Your task to perform on an android device: turn pop-ups on in chrome Image 0: 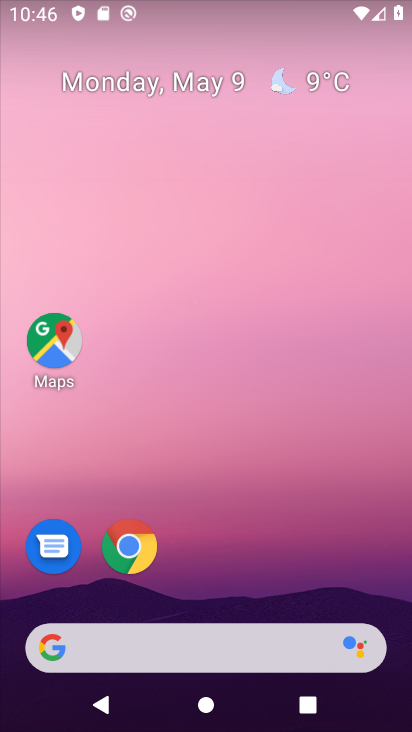
Step 0: click (125, 543)
Your task to perform on an android device: turn pop-ups on in chrome Image 1: 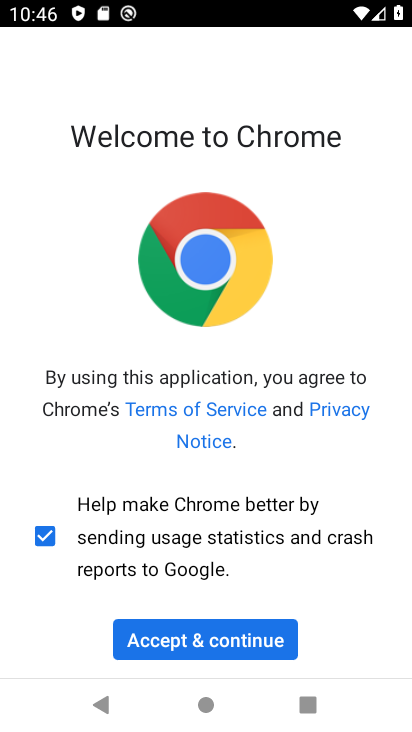
Step 1: click (252, 639)
Your task to perform on an android device: turn pop-ups on in chrome Image 2: 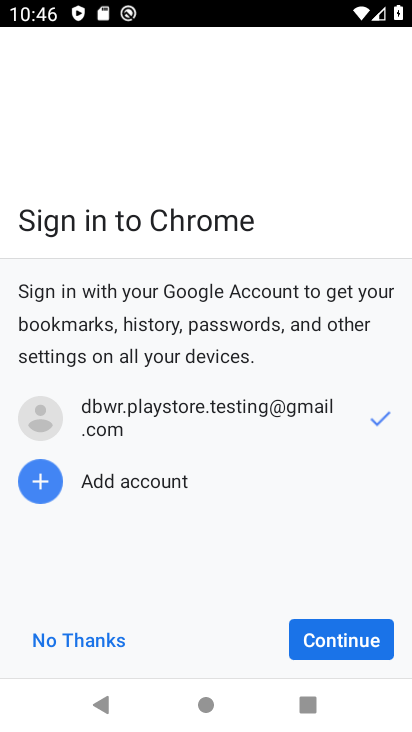
Step 2: click (349, 626)
Your task to perform on an android device: turn pop-ups on in chrome Image 3: 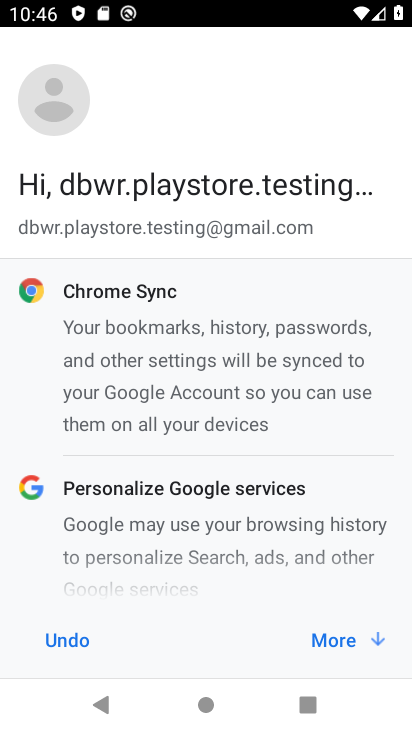
Step 3: click (333, 640)
Your task to perform on an android device: turn pop-ups on in chrome Image 4: 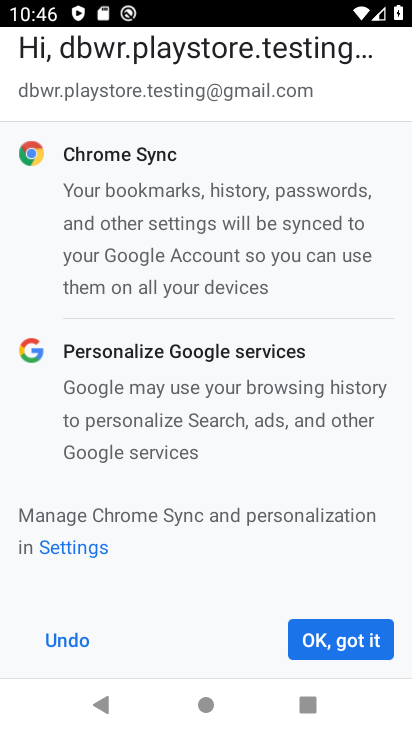
Step 4: click (356, 631)
Your task to perform on an android device: turn pop-ups on in chrome Image 5: 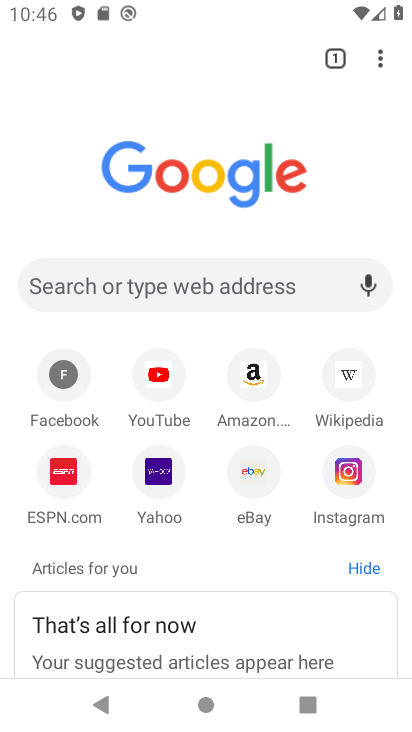
Step 5: click (382, 64)
Your task to perform on an android device: turn pop-ups on in chrome Image 6: 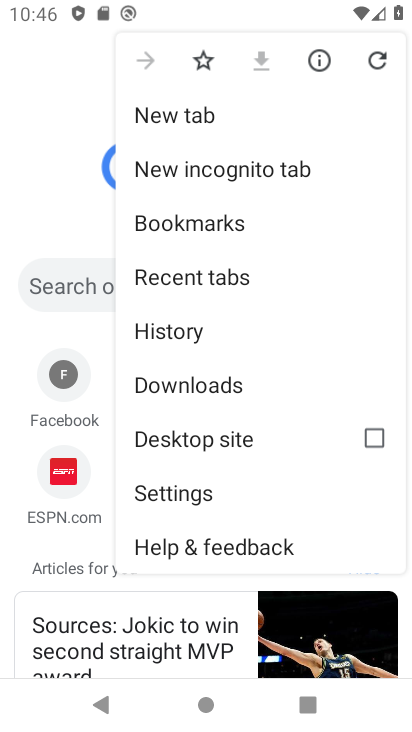
Step 6: click (188, 490)
Your task to perform on an android device: turn pop-ups on in chrome Image 7: 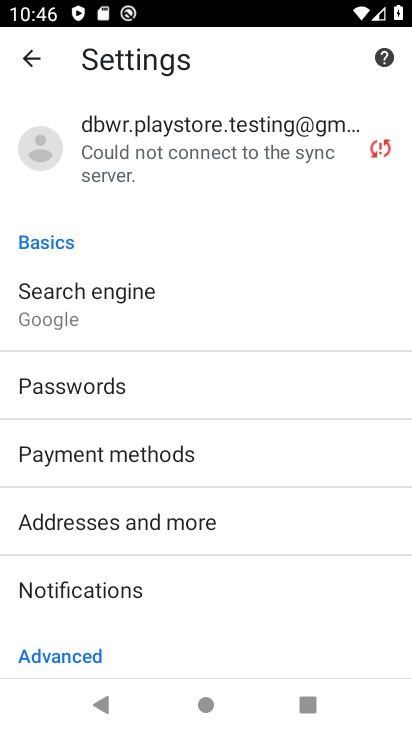
Step 7: drag from (213, 657) to (216, 282)
Your task to perform on an android device: turn pop-ups on in chrome Image 8: 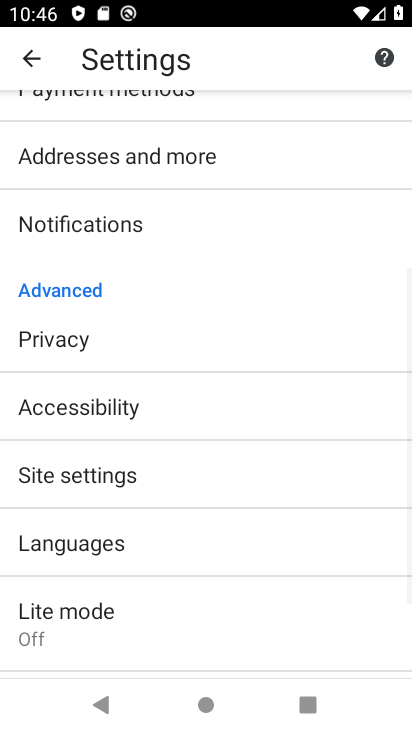
Step 8: click (81, 476)
Your task to perform on an android device: turn pop-ups on in chrome Image 9: 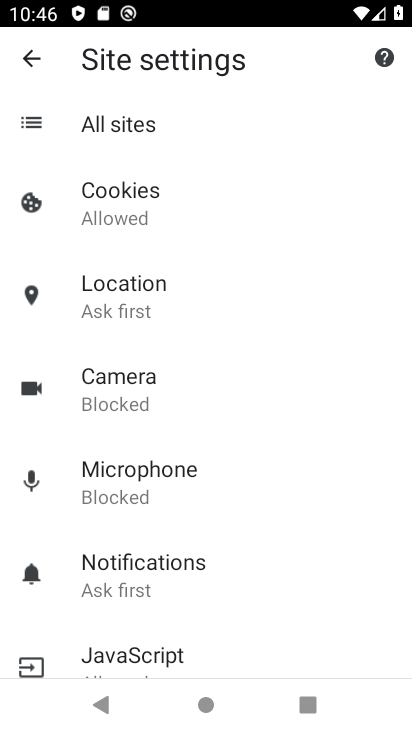
Step 9: drag from (204, 628) to (202, 300)
Your task to perform on an android device: turn pop-ups on in chrome Image 10: 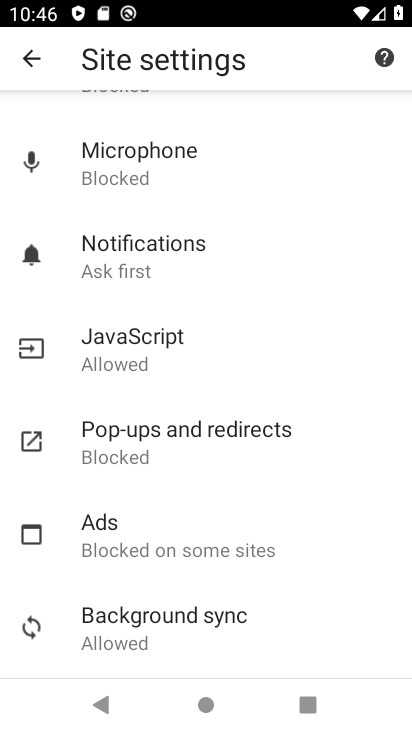
Step 10: click (180, 426)
Your task to perform on an android device: turn pop-ups on in chrome Image 11: 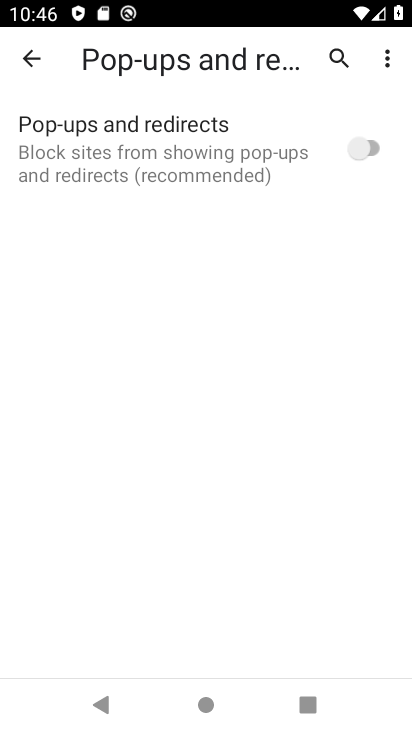
Step 11: click (373, 145)
Your task to perform on an android device: turn pop-ups on in chrome Image 12: 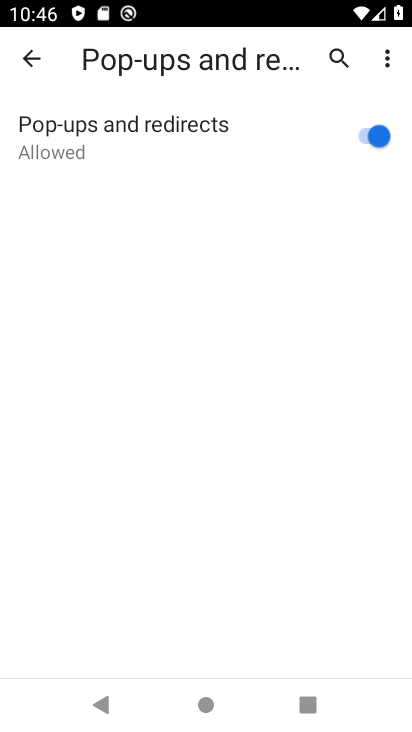
Step 12: task complete